Your task to perform on an android device: Open Google Maps and go to "Timeline" Image 0: 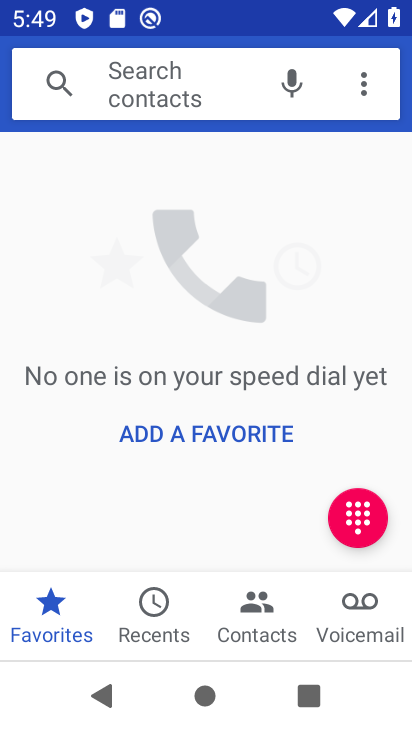
Step 0: press home button
Your task to perform on an android device: Open Google Maps and go to "Timeline" Image 1: 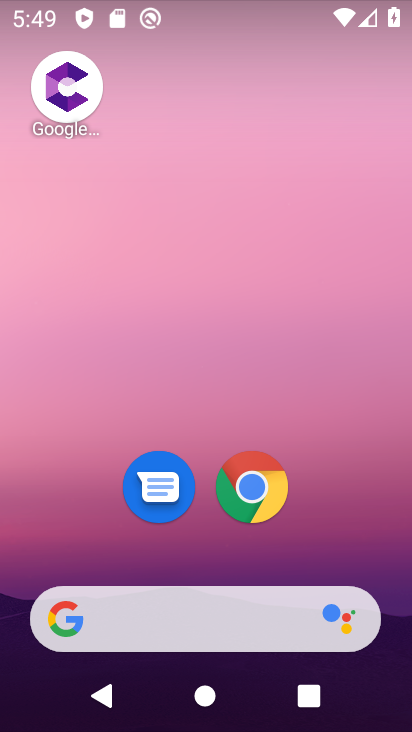
Step 1: drag from (220, 552) to (220, 74)
Your task to perform on an android device: Open Google Maps and go to "Timeline" Image 2: 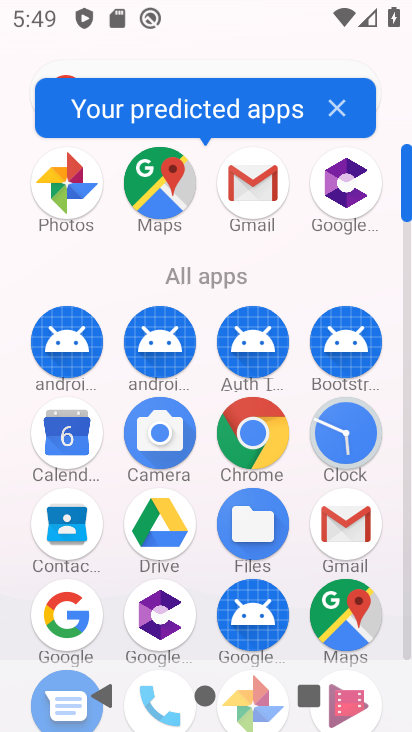
Step 2: click (157, 175)
Your task to perform on an android device: Open Google Maps and go to "Timeline" Image 3: 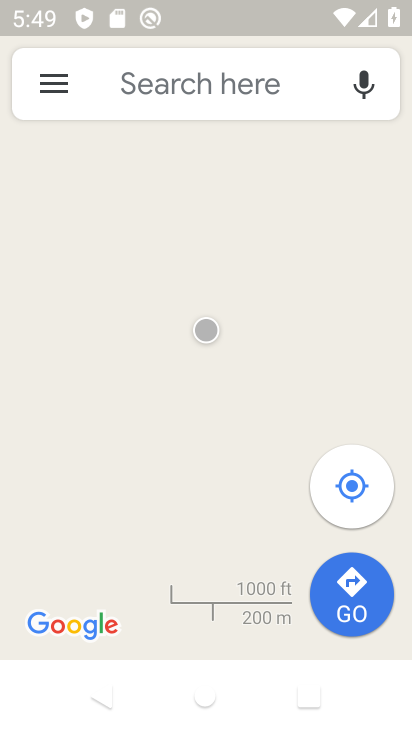
Step 3: click (49, 77)
Your task to perform on an android device: Open Google Maps and go to "Timeline" Image 4: 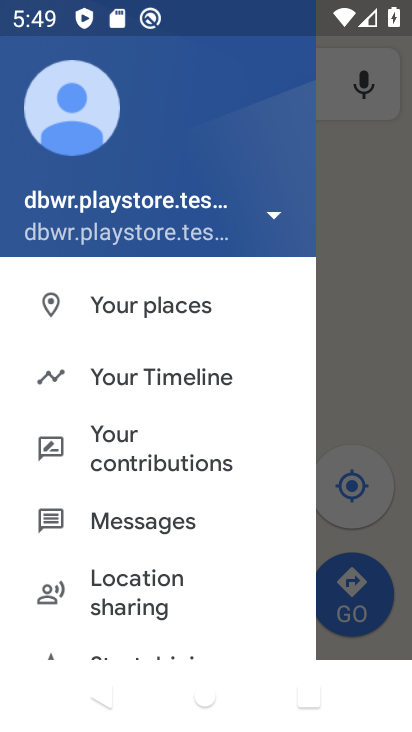
Step 4: click (161, 374)
Your task to perform on an android device: Open Google Maps and go to "Timeline" Image 5: 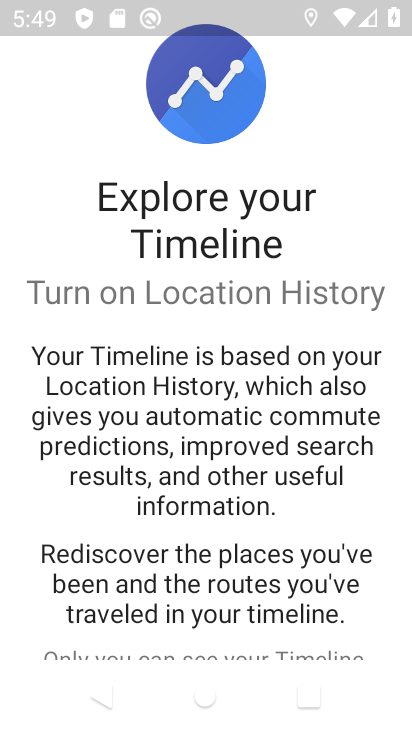
Step 5: drag from (252, 494) to (267, 173)
Your task to perform on an android device: Open Google Maps and go to "Timeline" Image 6: 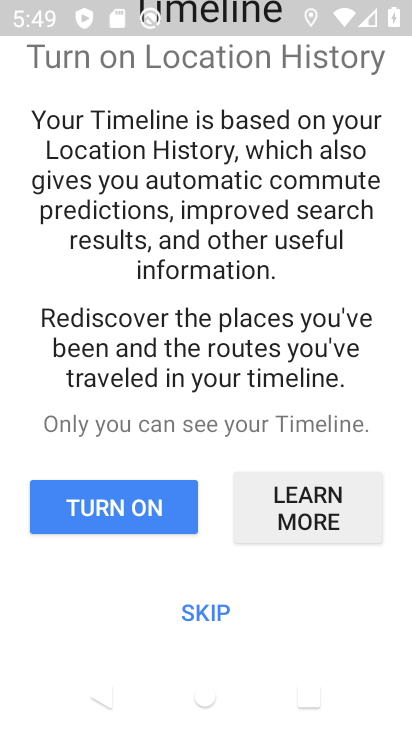
Step 6: click (157, 531)
Your task to perform on an android device: Open Google Maps and go to "Timeline" Image 7: 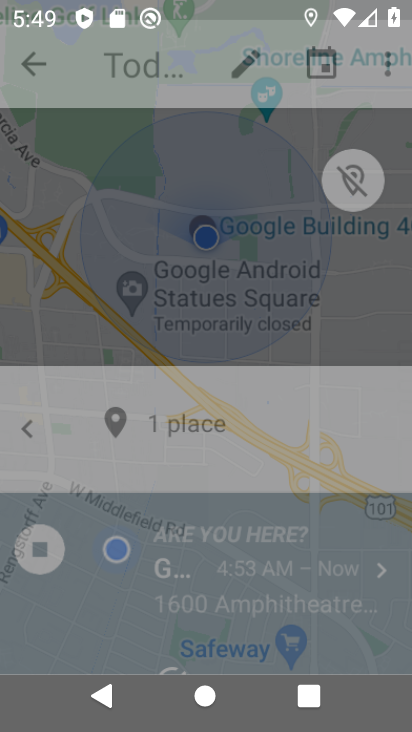
Step 7: task complete